Your task to perform on an android device: turn on sleep mode Image 0: 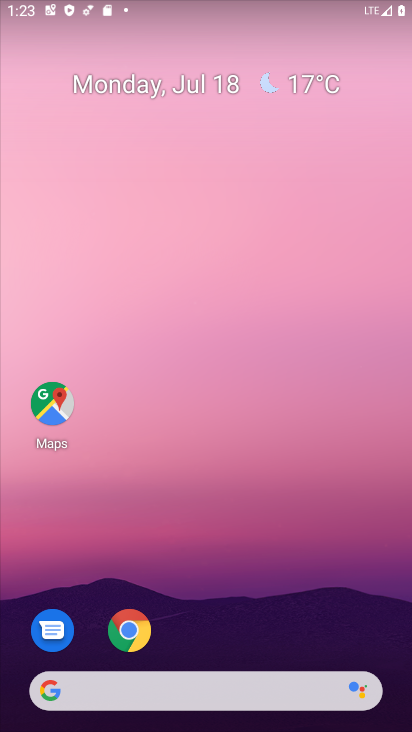
Step 0: drag from (254, 538) to (268, 88)
Your task to perform on an android device: turn on sleep mode Image 1: 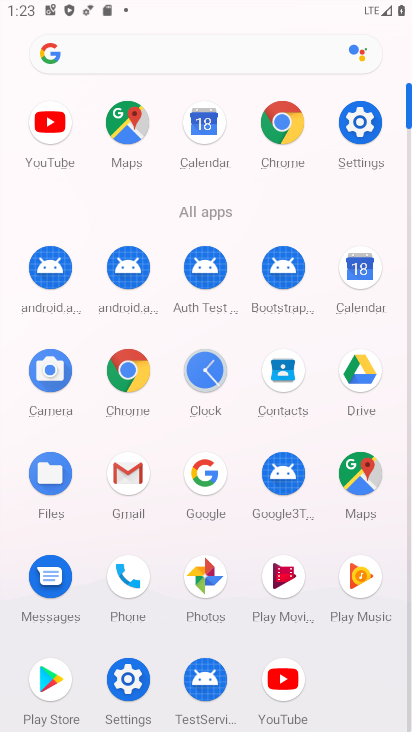
Step 1: click (346, 129)
Your task to perform on an android device: turn on sleep mode Image 2: 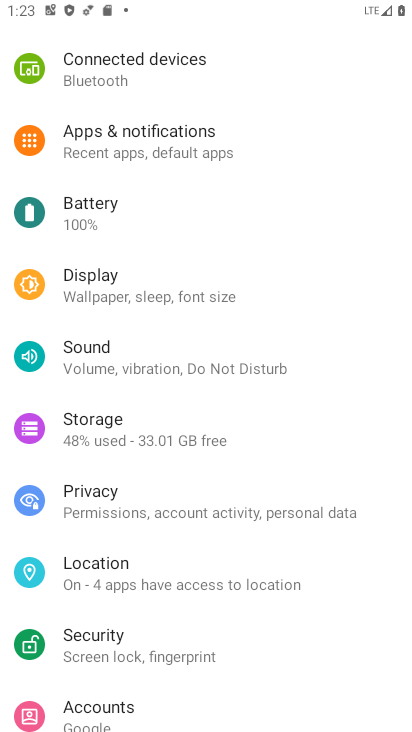
Step 2: click (161, 289)
Your task to perform on an android device: turn on sleep mode Image 3: 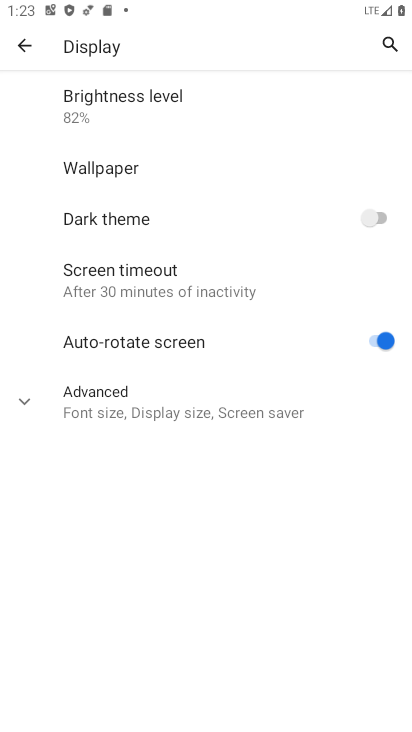
Step 3: click (25, 400)
Your task to perform on an android device: turn on sleep mode Image 4: 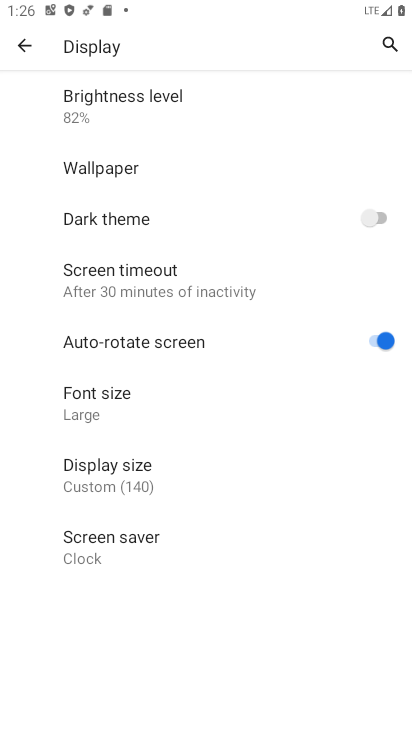
Step 4: task complete